Your task to perform on an android device: Show me the alarms in the clock app Image 0: 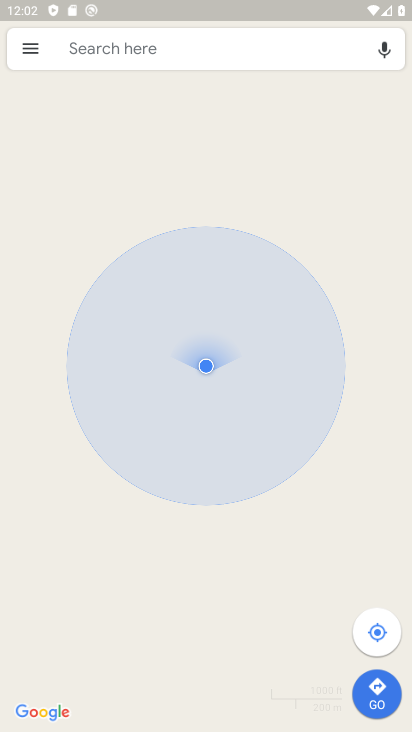
Step 0: press home button
Your task to perform on an android device: Show me the alarms in the clock app Image 1: 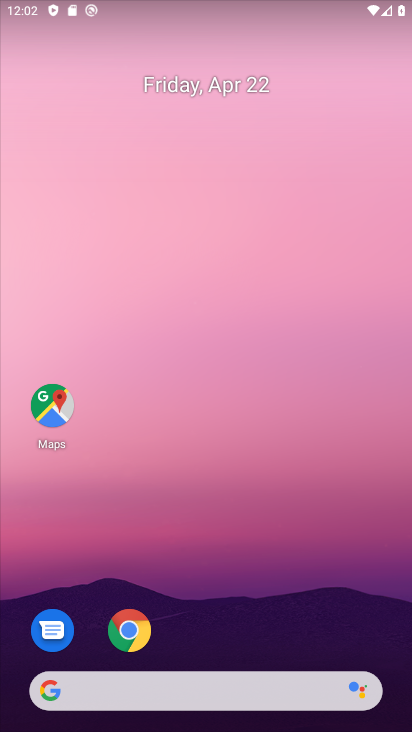
Step 1: drag from (208, 695) to (220, 158)
Your task to perform on an android device: Show me the alarms in the clock app Image 2: 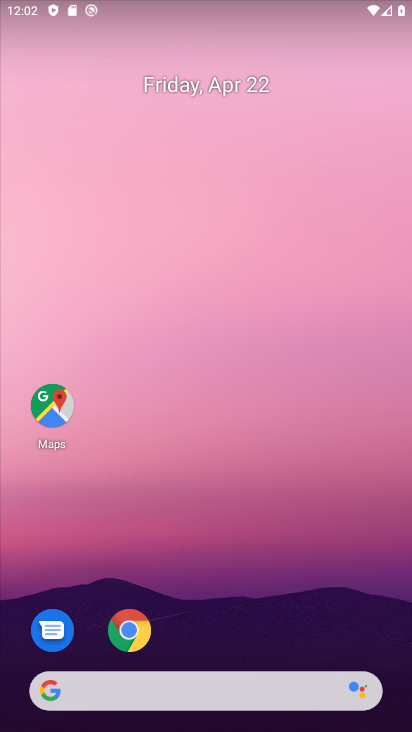
Step 2: drag from (240, 729) to (255, 7)
Your task to perform on an android device: Show me the alarms in the clock app Image 3: 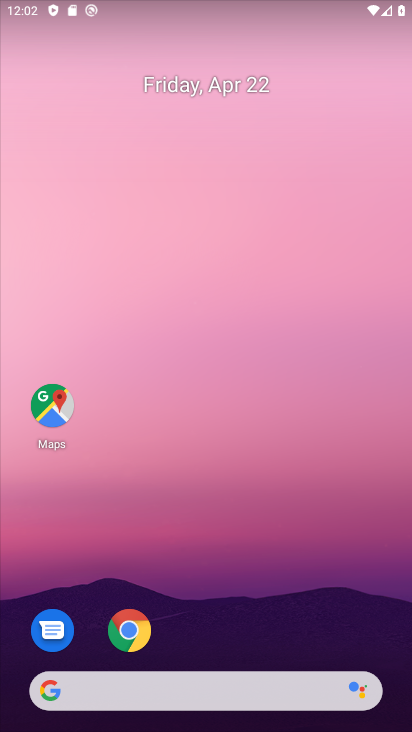
Step 3: drag from (256, 684) to (288, 12)
Your task to perform on an android device: Show me the alarms in the clock app Image 4: 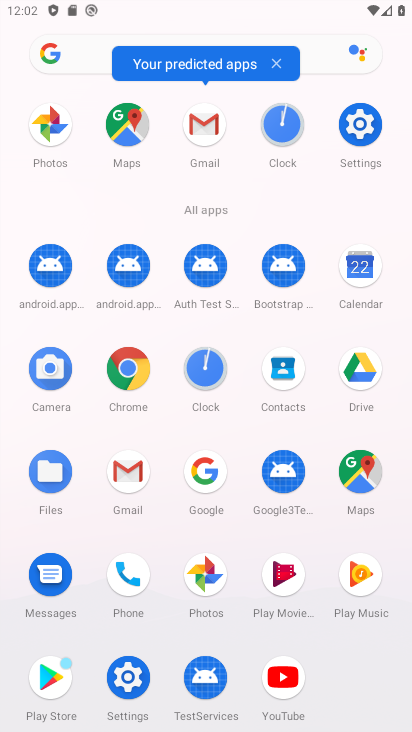
Step 4: click (209, 376)
Your task to perform on an android device: Show me the alarms in the clock app Image 5: 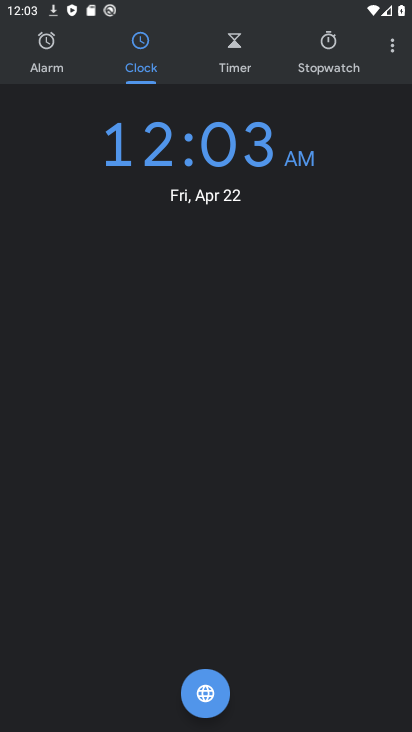
Step 5: task complete